Your task to perform on an android device: Open Yahoo.com Image 0: 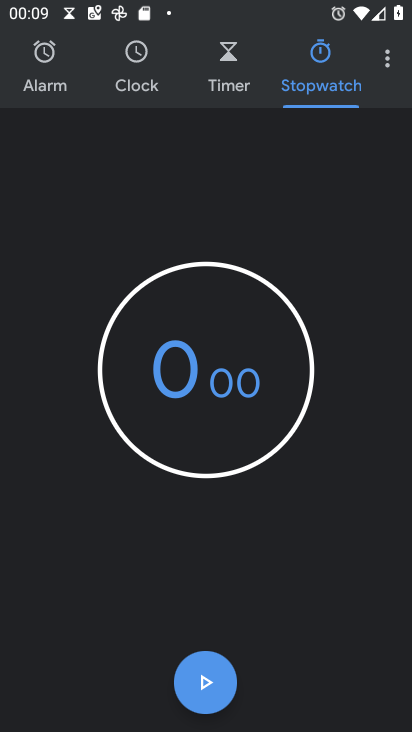
Step 0: press home button
Your task to perform on an android device: Open Yahoo.com Image 1: 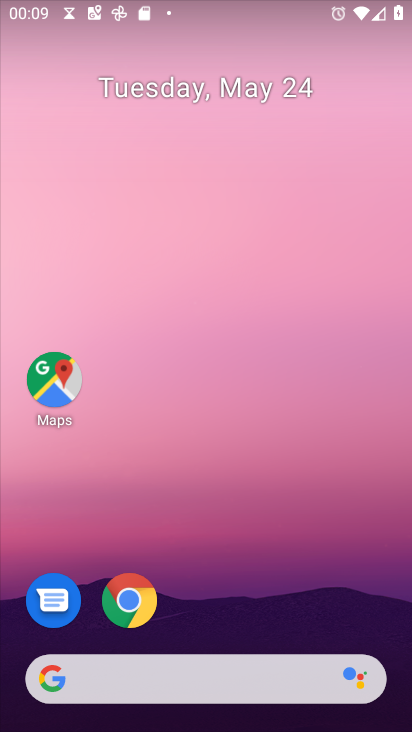
Step 1: click (127, 602)
Your task to perform on an android device: Open Yahoo.com Image 2: 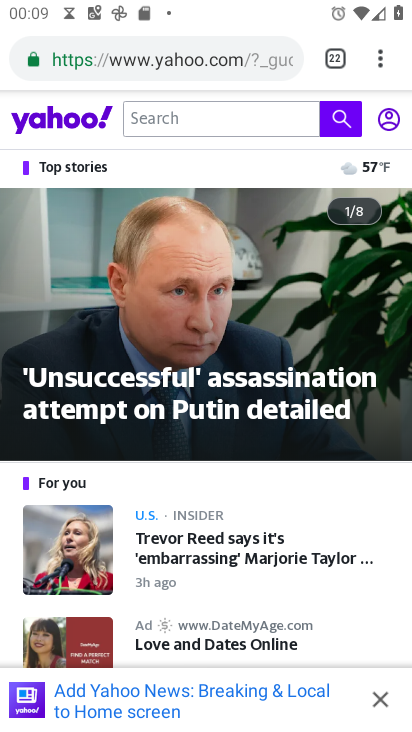
Step 2: click (381, 62)
Your task to perform on an android device: Open Yahoo.com Image 3: 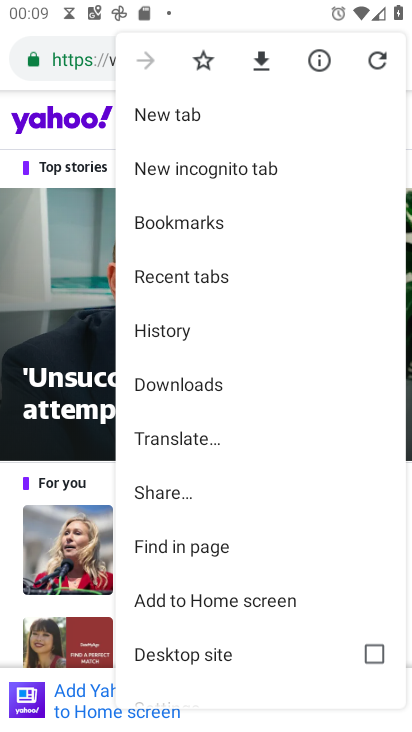
Step 3: click (176, 114)
Your task to perform on an android device: Open Yahoo.com Image 4: 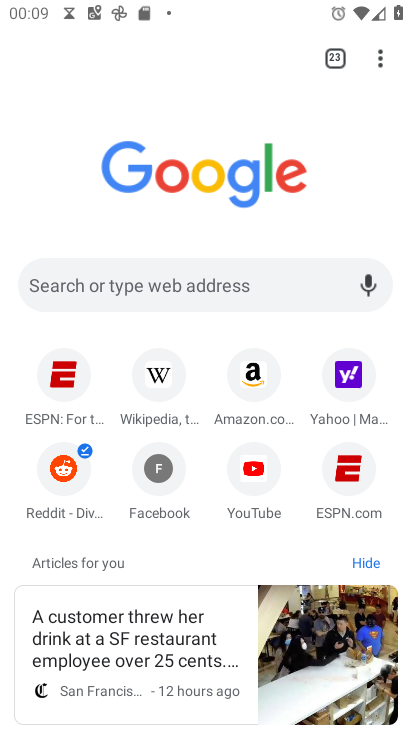
Step 4: click (343, 380)
Your task to perform on an android device: Open Yahoo.com Image 5: 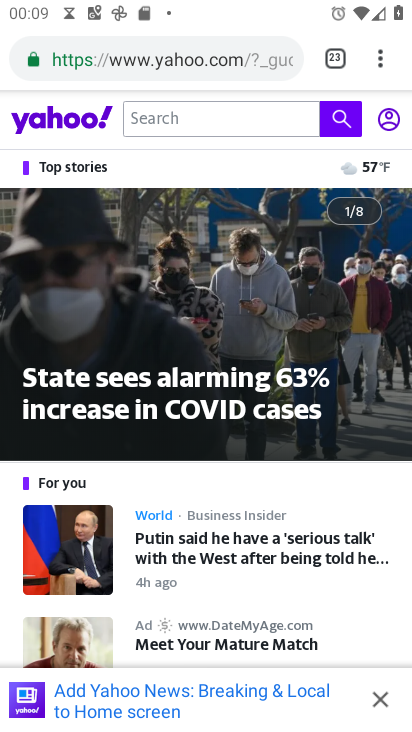
Step 5: task complete